Your task to perform on an android device: Open Amazon Image 0: 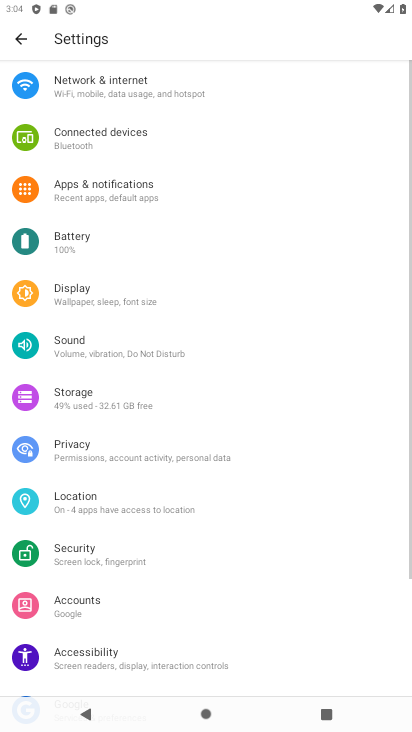
Step 0: press home button
Your task to perform on an android device: Open Amazon Image 1: 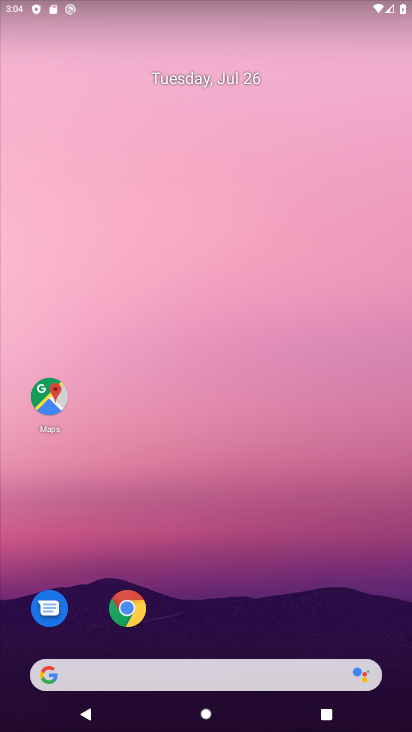
Step 1: click (131, 610)
Your task to perform on an android device: Open Amazon Image 2: 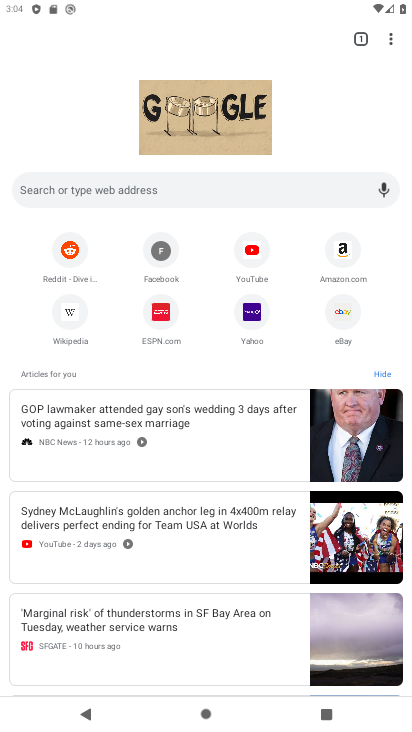
Step 2: click (342, 249)
Your task to perform on an android device: Open Amazon Image 3: 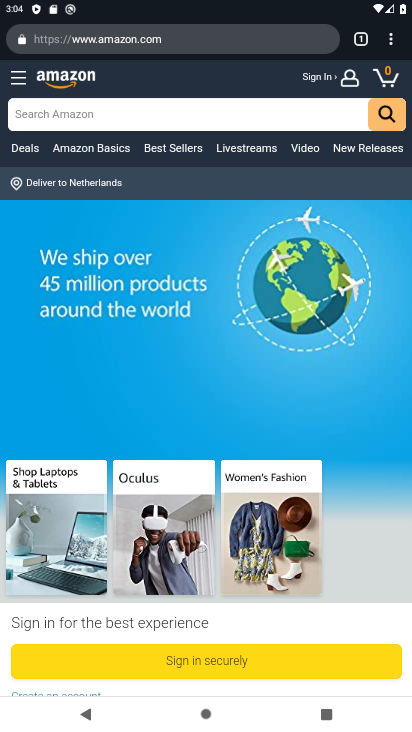
Step 3: task complete